Your task to perform on an android device: Open notification settings Image 0: 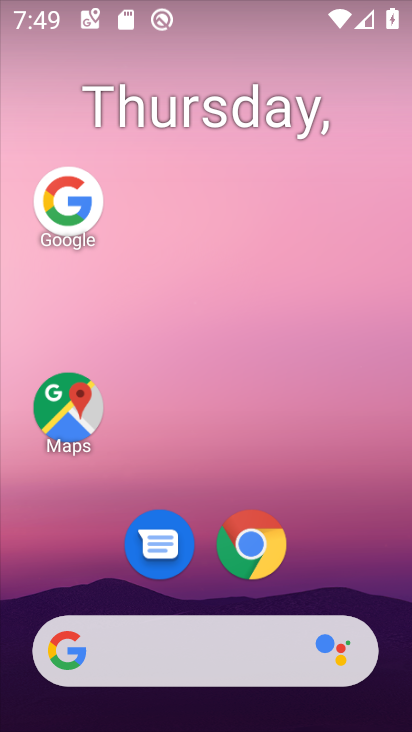
Step 0: drag from (277, 514) to (263, 220)
Your task to perform on an android device: Open notification settings Image 1: 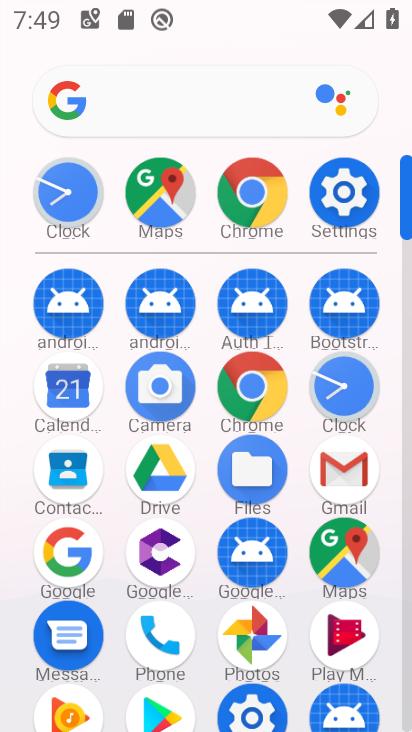
Step 1: click (344, 191)
Your task to perform on an android device: Open notification settings Image 2: 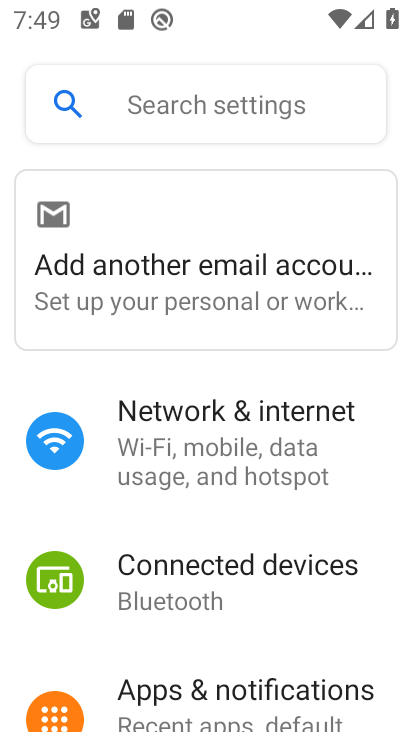
Step 2: click (217, 85)
Your task to perform on an android device: Open notification settings Image 3: 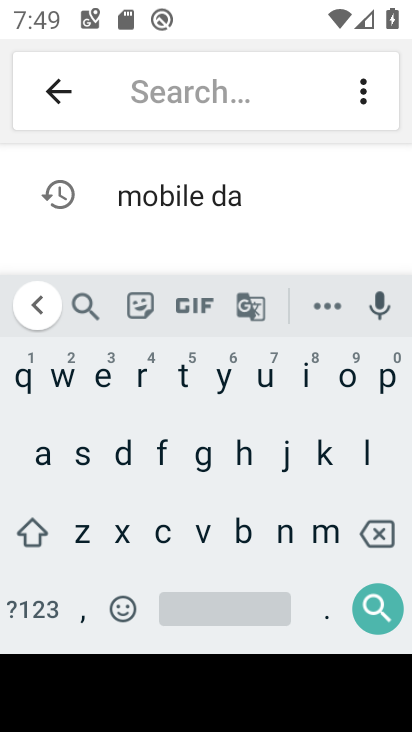
Step 3: click (280, 536)
Your task to perform on an android device: Open notification settings Image 4: 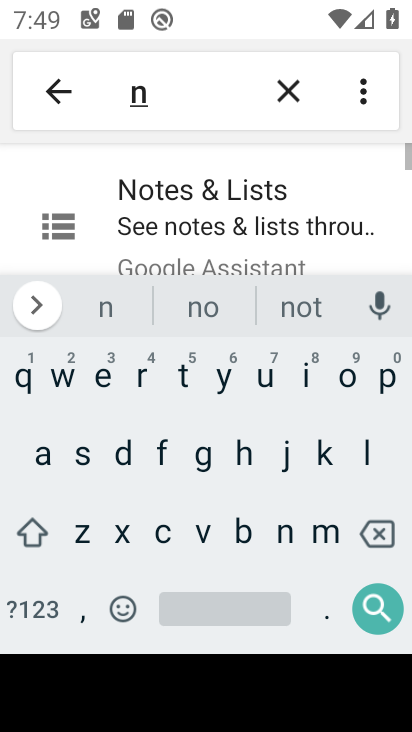
Step 4: click (344, 385)
Your task to perform on an android device: Open notification settings Image 5: 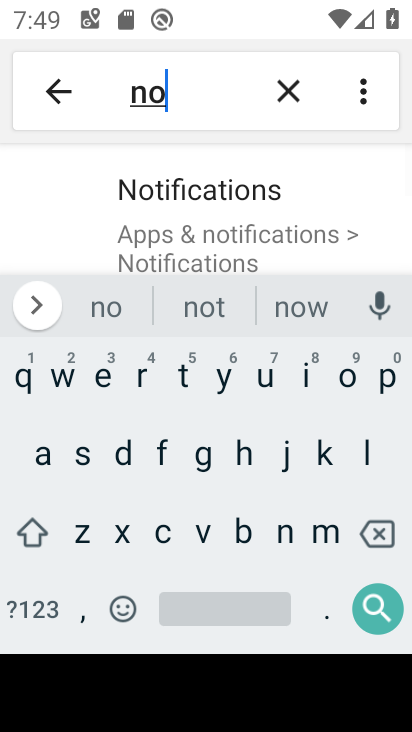
Step 5: click (184, 379)
Your task to perform on an android device: Open notification settings Image 6: 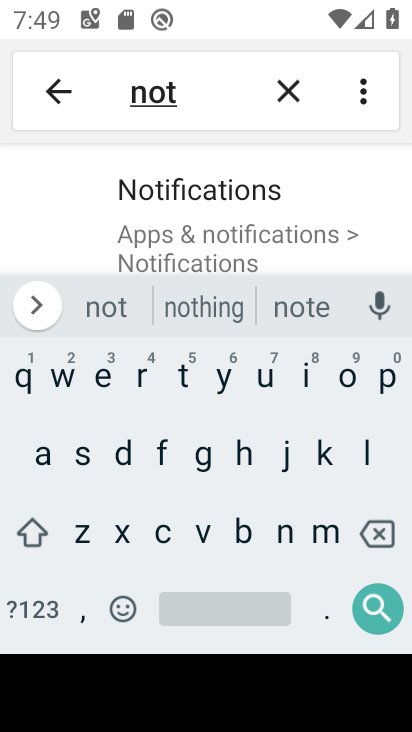
Step 6: click (204, 234)
Your task to perform on an android device: Open notification settings Image 7: 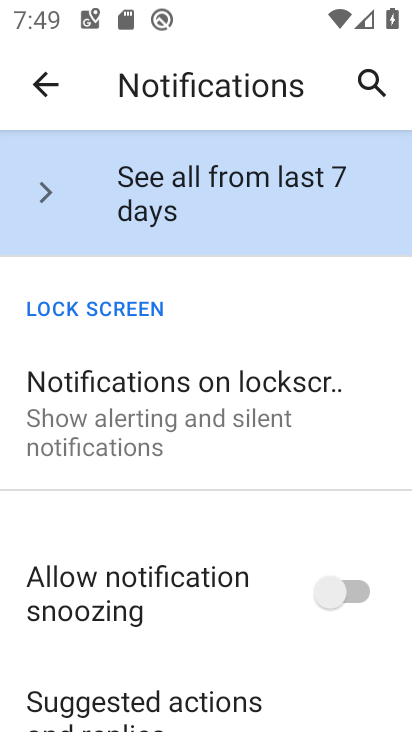
Step 7: click (152, 388)
Your task to perform on an android device: Open notification settings Image 8: 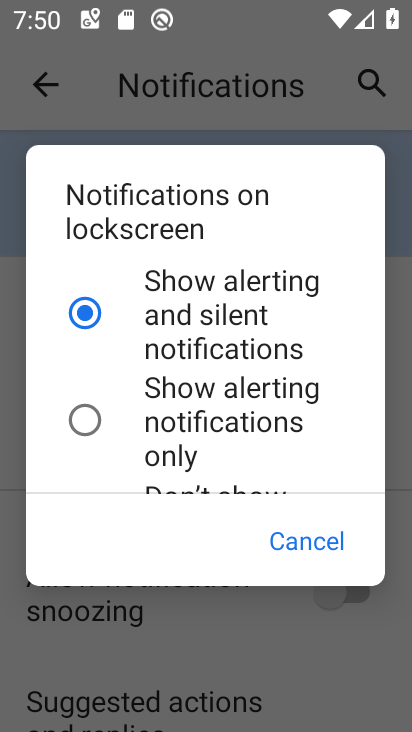
Step 8: task complete